Your task to perform on an android device: turn notification dots off Image 0: 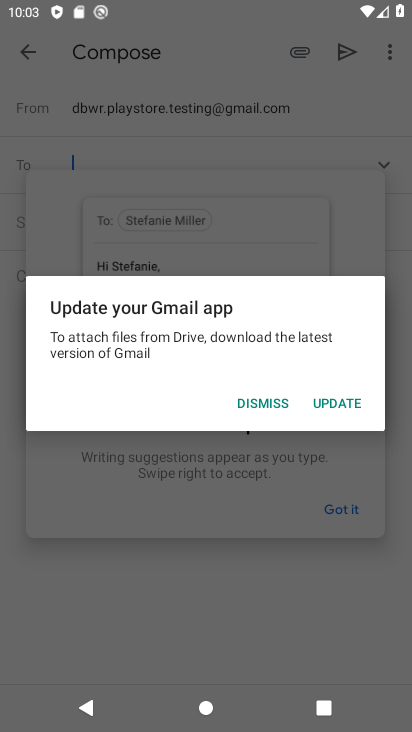
Step 0: press home button
Your task to perform on an android device: turn notification dots off Image 1: 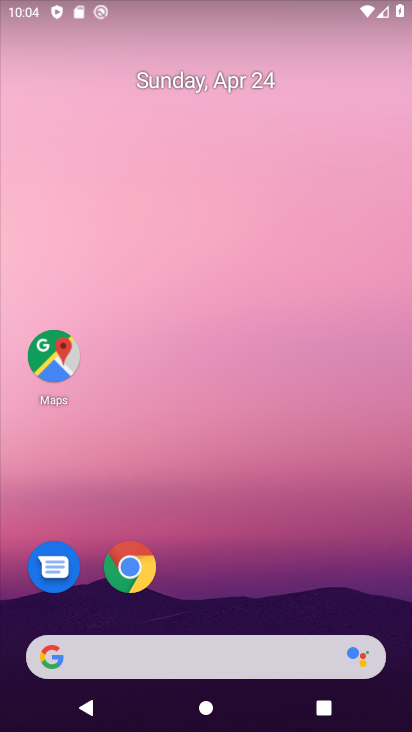
Step 1: drag from (180, 647) to (302, 194)
Your task to perform on an android device: turn notification dots off Image 2: 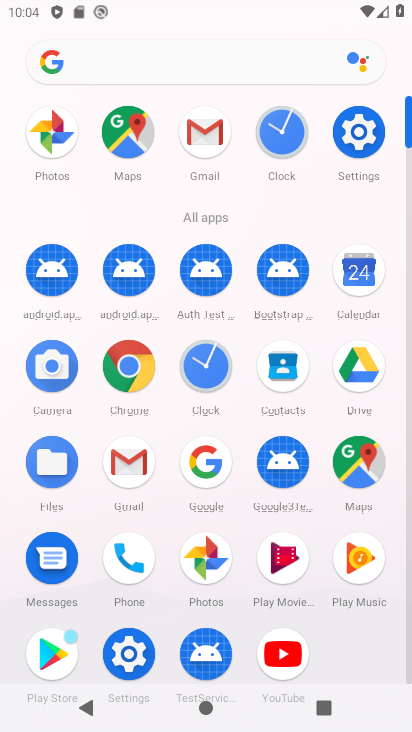
Step 2: click (355, 138)
Your task to perform on an android device: turn notification dots off Image 3: 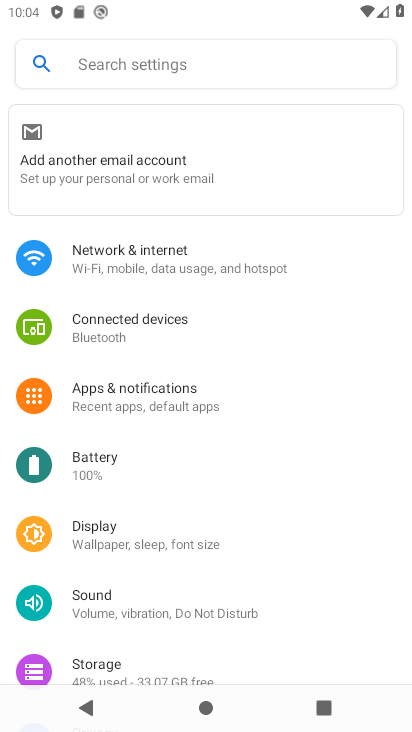
Step 3: click (169, 399)
Your task to perform on an android device: turn notification dots off Image 4: 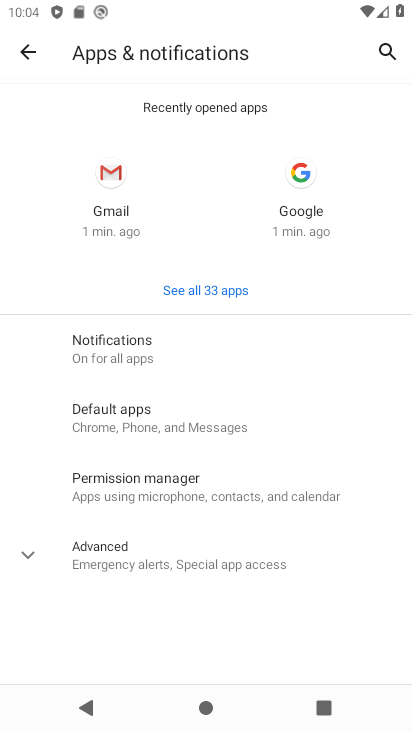
Step 4: click (143, 353)
Your task to perform on an android device: turn notification dots off Image 5: 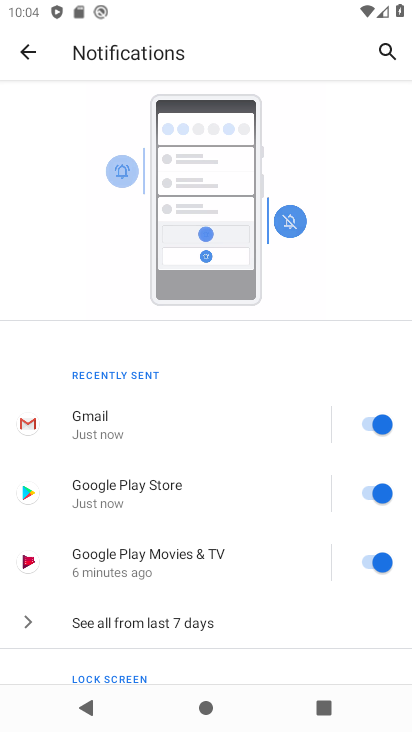
Step 5: drag from (195, 583) to (333, 239)
Your task to perform on an android device: turn notification dots off Image 6: 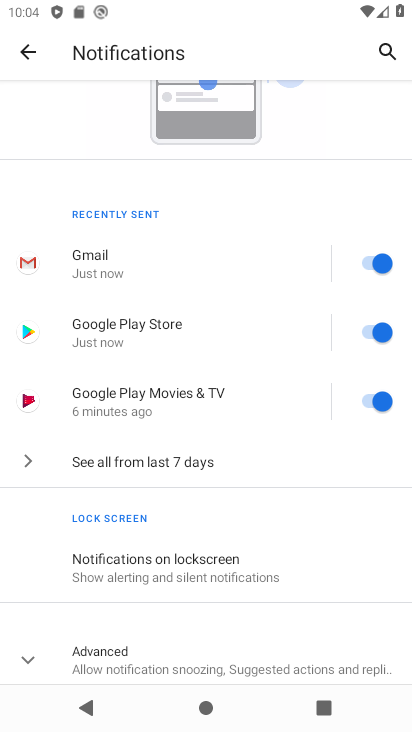
Step 6: click (140, 659)
Your task to perform on an android device: turn notification dots off Image 7: 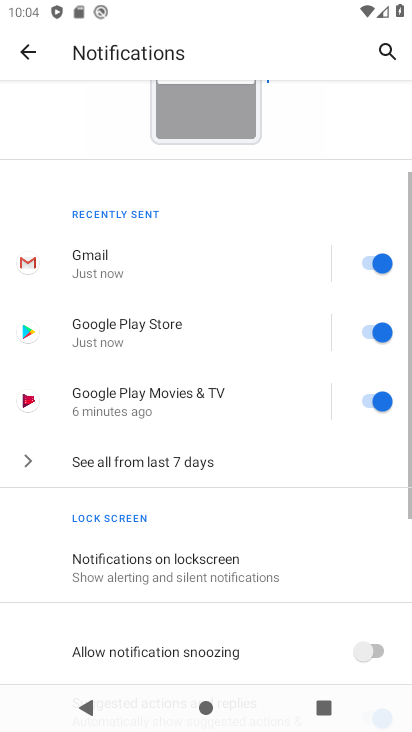
Step 7: drag from (235, 526) to (320, 222)
Your task to perform on an android device: turn notification dots off Image 8: 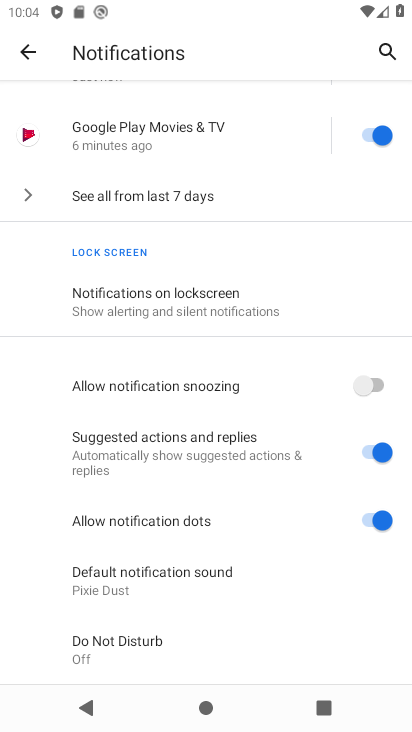
Step 8: click (371, 521)
Your task to perform on an android device: turn notification dots off Image 9: 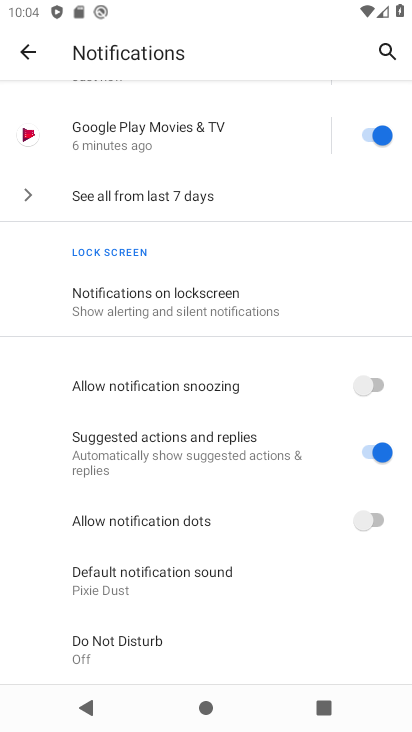
Step 9: task complete